Your task to perform on an android device: Check the weather Image 0: 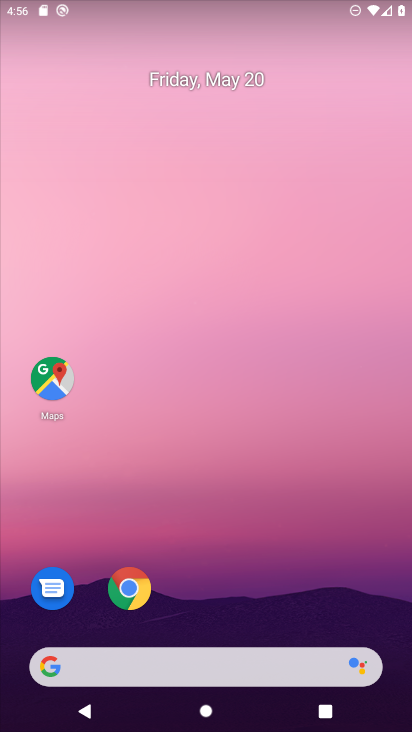
Step 0: drag from (202, 503) to (253, 211)
Your task to perform on an android device: Check the weather Image 1: 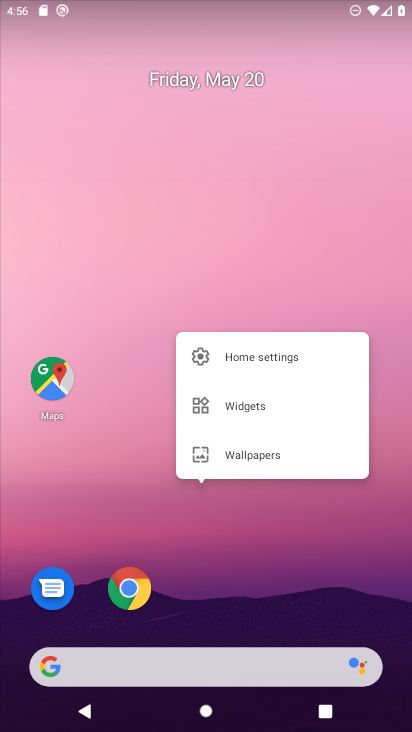
Step 1: drag from (213, 535) to (187, 156)
Your task to perform on an android device: Check the weather Image 2: 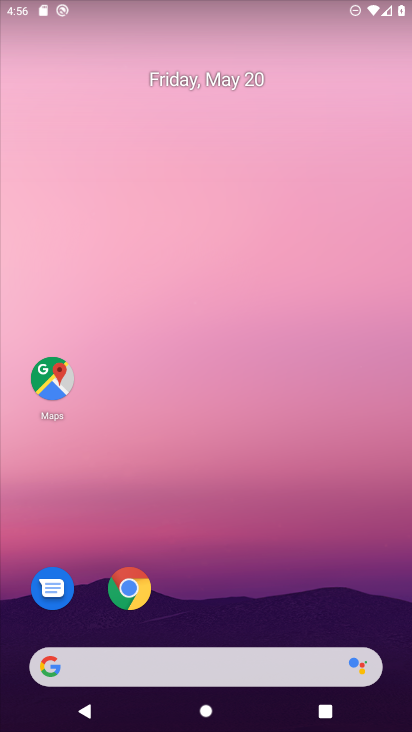
Step 2: click (219, 656)
Your task to perform on an android device: Check the weather Image 3: 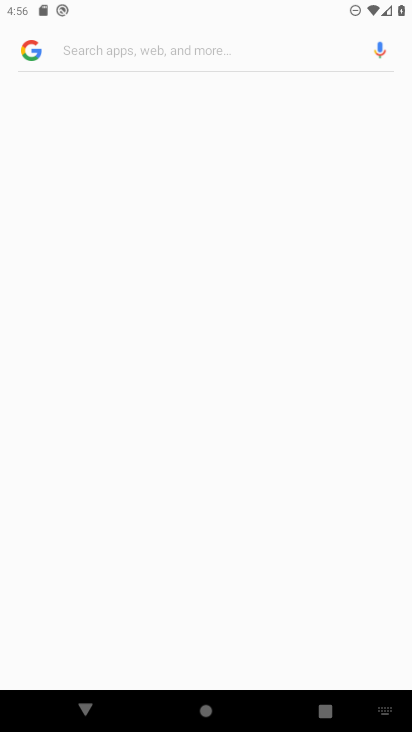
Step 3: click (151, 665)
Your task to perform on an android device: Check the weather Image 4: 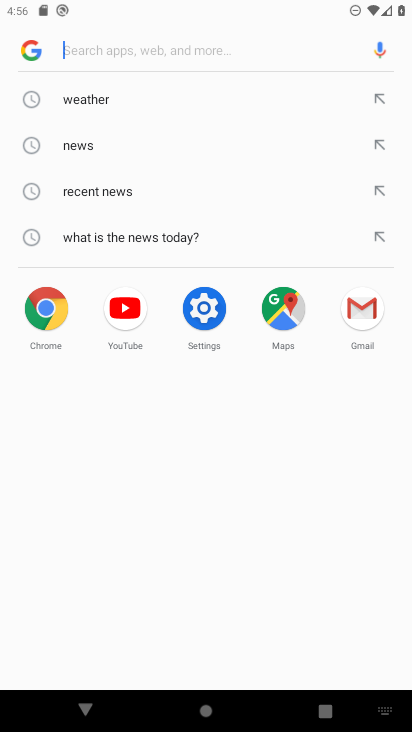
Step 4: click (76, 106)
Your task to perform on an android device: Check the weather Image 5: 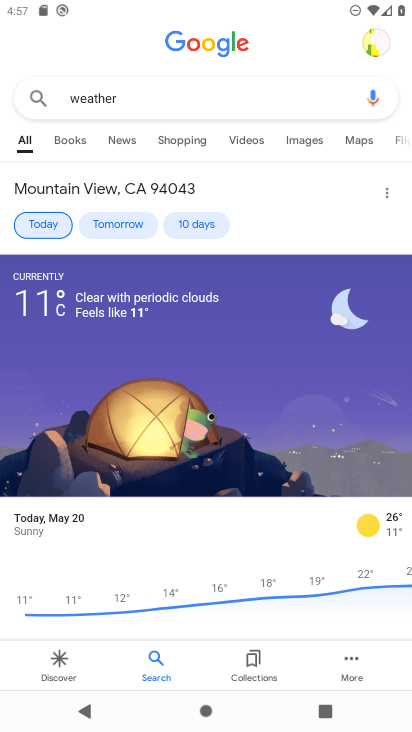
Step 5: task complete